Your task to perform on an android device: Show me popular games on the Play Store Image 0: 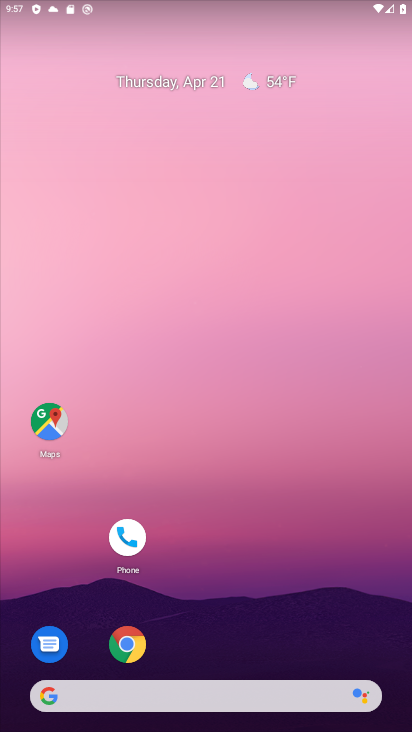
Step 0: drag from (277, 633) to (256, 140)
Your task to perform on an android device: Show me popular games on the Play Store Image 1: 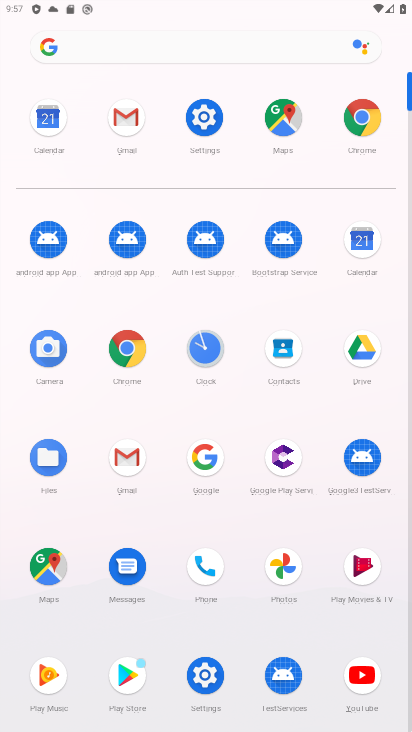
Step 1: click (130, 677)
Your task to perform on an android device: Show me popular games on the Play Store Image 2: 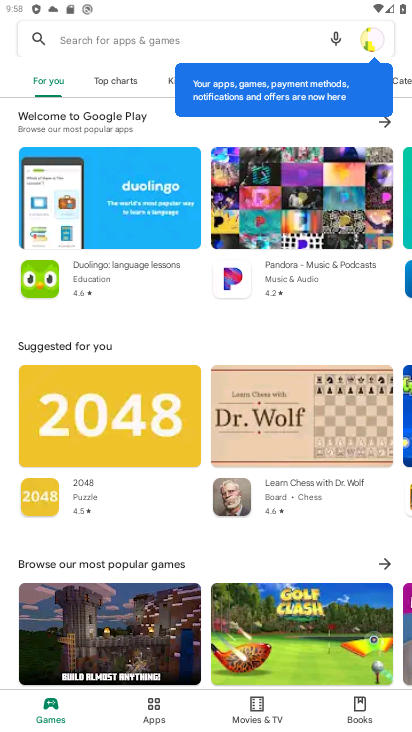
Step 2: click (121, 82)
Your task to perform on an android device: Show me popular games on the Play Store Image 3: 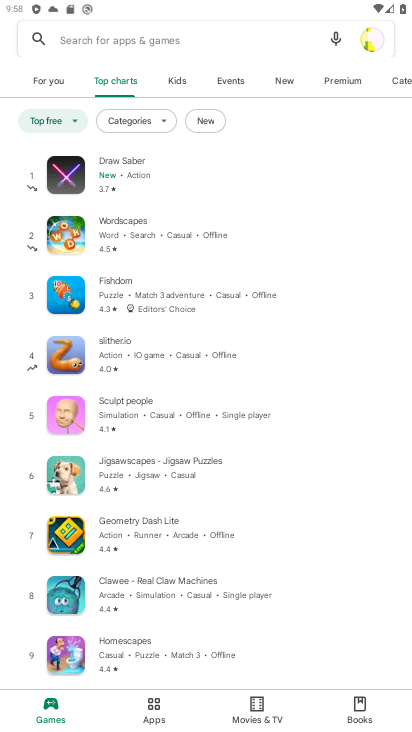
Step 3: task complete